Your task to perform on an android device: make emails show in primary in the gmail app Image 0: 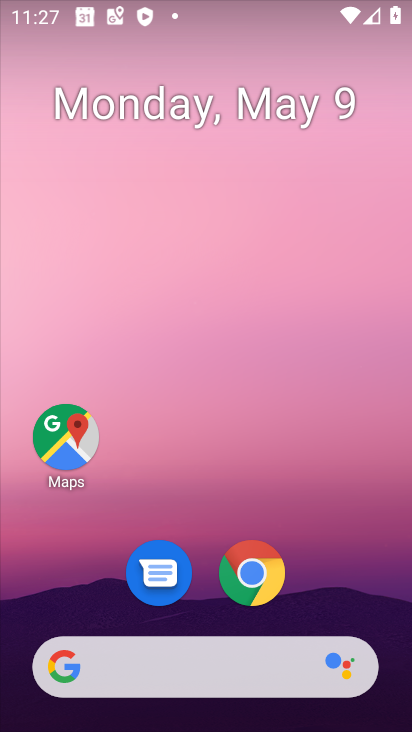
Step 0: click (320, 264)
Your task to perform on an android device: make emails show in primary in the gmail app Image 1: 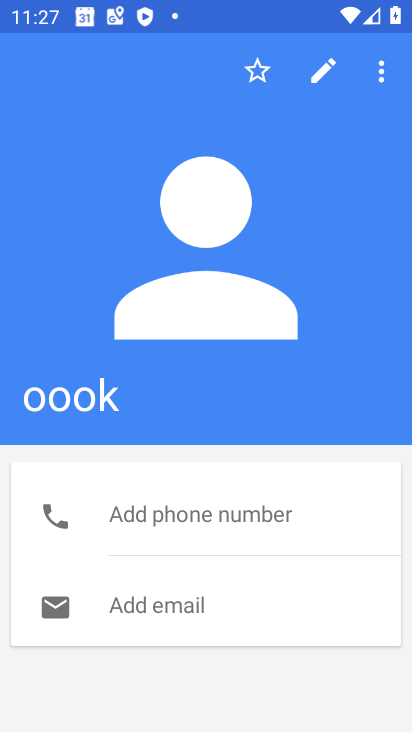
Step 1: drag from (218, 629) to (250, 297)
Your task to perform on an android device: make emails show in primary in the gmail app Image 2: 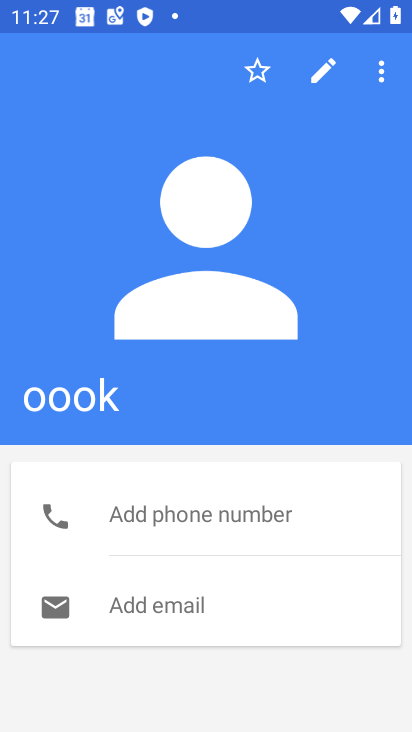
Step 2: drag from (277, 587) to (287, 320)
Your task to perform on an android device: make emails show in primary in the gmail app Image 3: 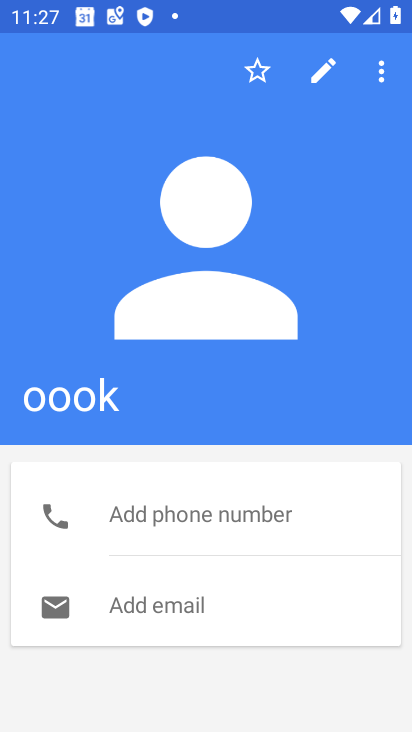
Step 3: drag from (205, 574) to (261, 245)
Your task to perform on an android device: make emails show in primary in the gmail app Image 4: 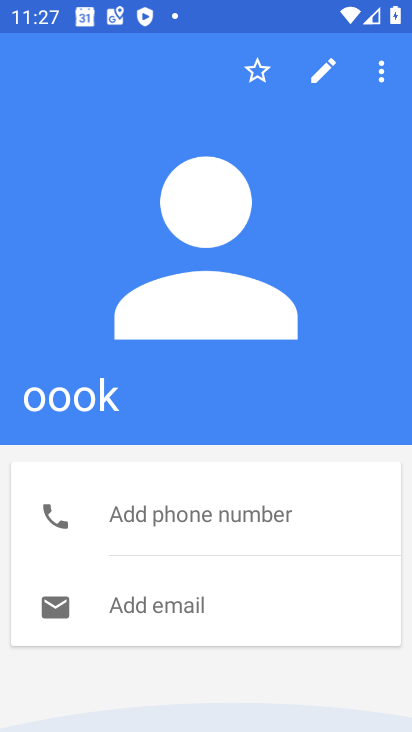
Step 4: drag from (250, 218) to (248, 534)
Your task to perform on an android device: make emails show in primary in the gmail app Image 5: 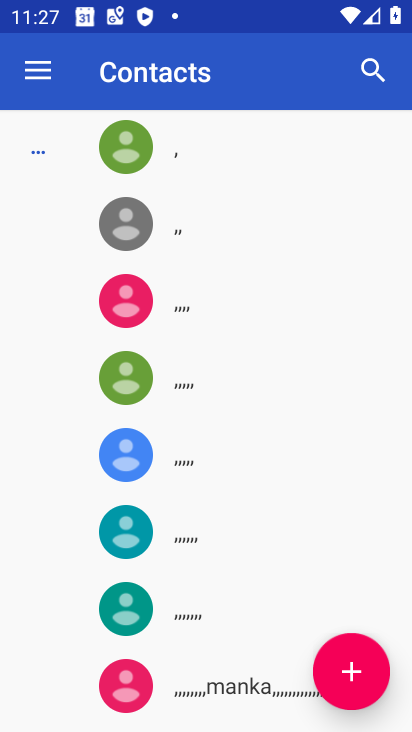
Step 5: drag from (223, 547) to (237, 287)
Your task to perform on an android device: make emails show in primary in the gmail app Image 6: 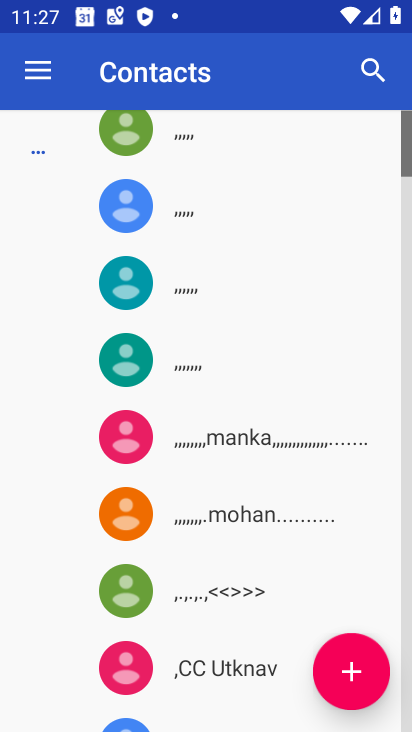
Step 6: drag from (237, 251) to (261, 641)
Your task to perform on an android device: make emails show in primary in the gmail app Image 7: 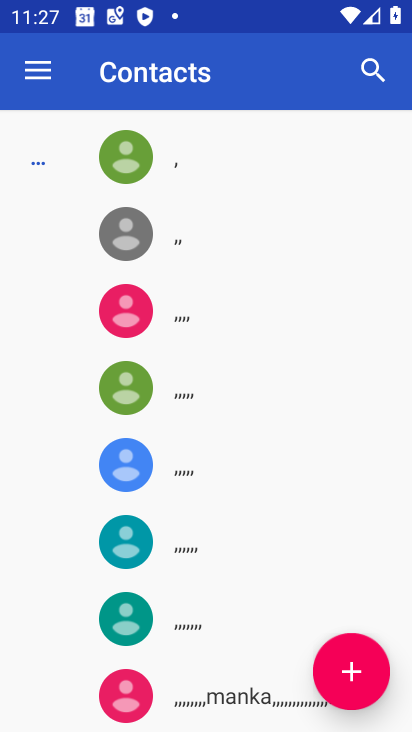
Step 7: press home button
Your task to perform on an android device: make emails show in primary in the gmail app Image 8: 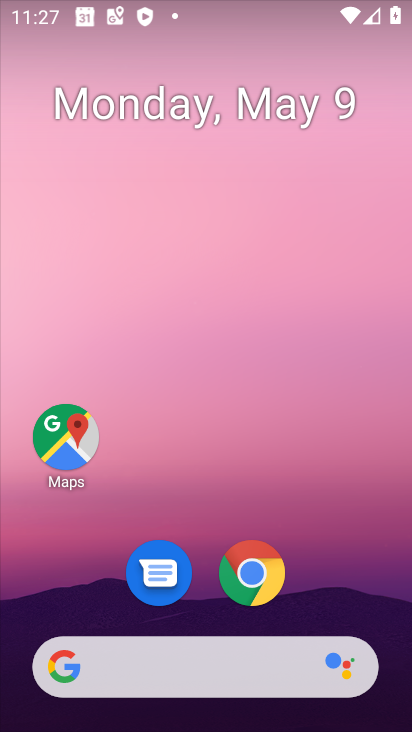
Step 8: drag from (204, 599) to (236, 336)
Your task to perform on an android device: make emails show in primary in the gmail app Image 9: 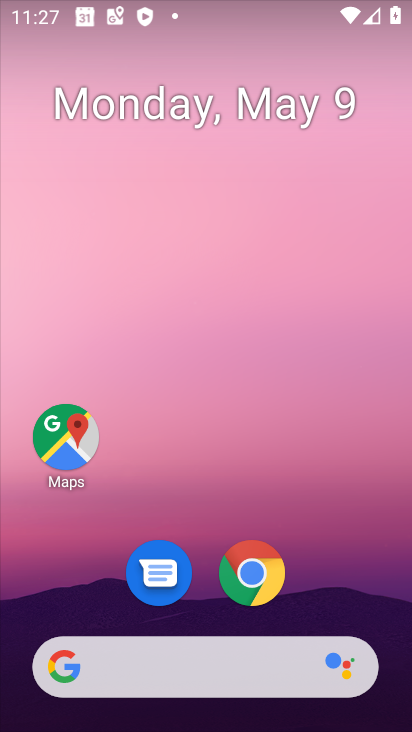
Step 9: drag from (213, 602) to (229, 308)
Your task to perform on an android device: make emails show in primary in the gmail app Image 10: 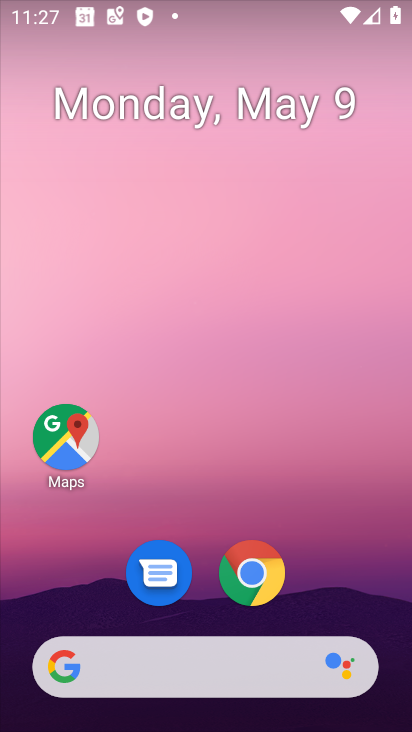
Step 10: drag from (212, 600) to (212, 259)
Your task to perform on an android device: make emails show in primary in the gmail app Image 11: 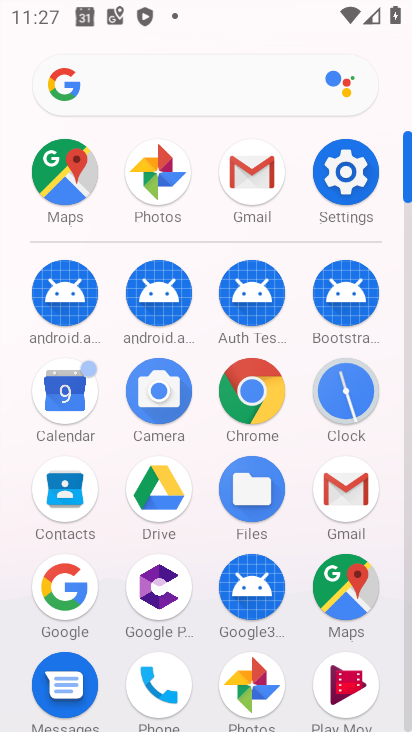
Step 11: click (339, 500)
Your task to perform on an android device: make emails show in primary in the gmail app Image 12: 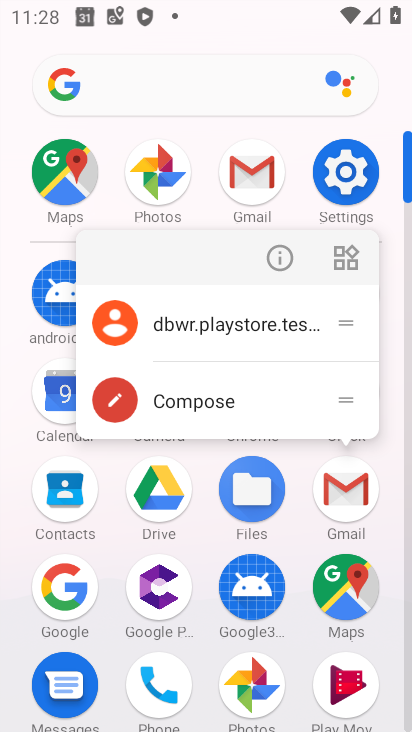
Step 12: click (293, 263)
Your task to perform on an android device: make emails show in primary in the gmail app Image 13: 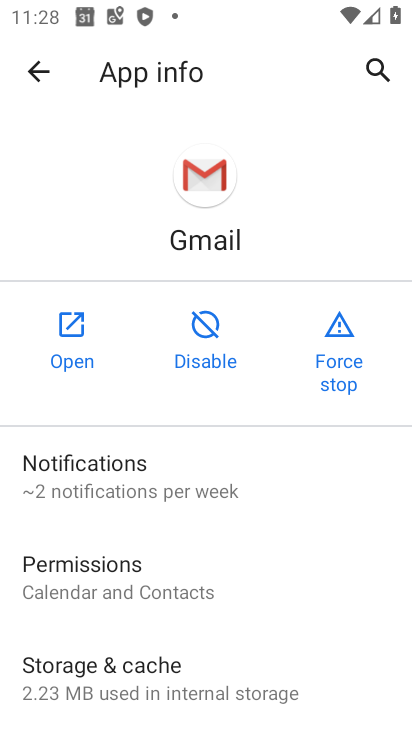
Step 13: click (60, 345)
Your task to perform on an android device: make emails show in primary in the gmail app Image 14: 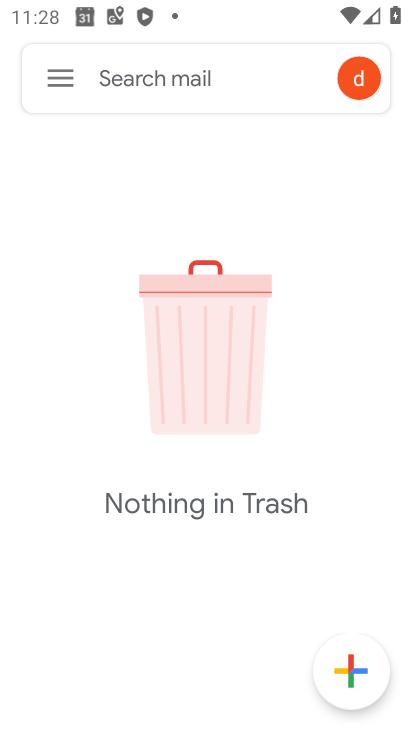
Step 14: drag from (185, 506) to (192, 362)
Your task to perform on an android device: make emails show in primary in the gmail app Image 15: 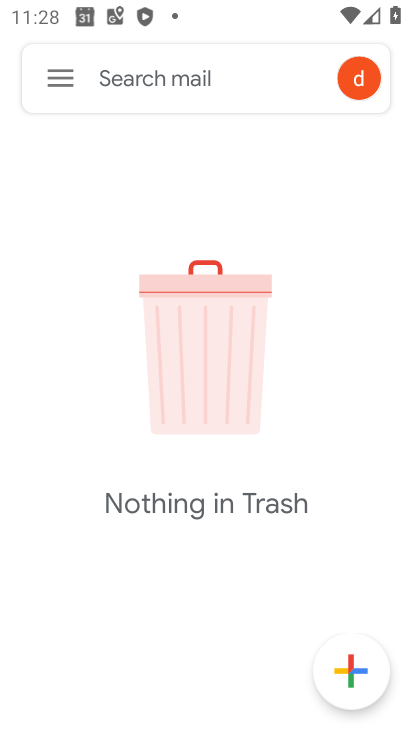
Step 15: click (50, 70)
Your task to perform on an android device: make emails show in primary in the gmail app Image 16: 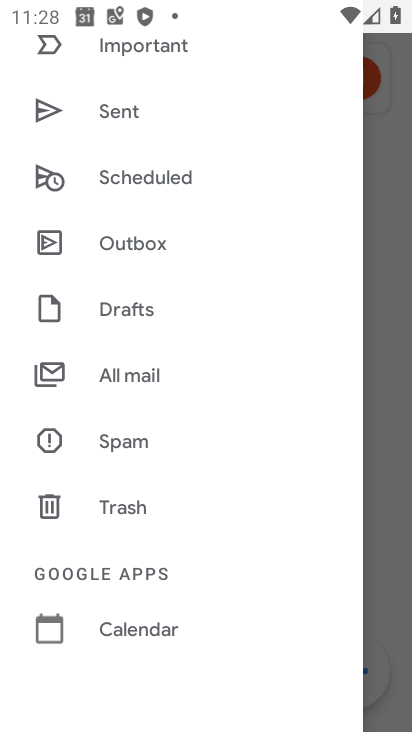
Step 16: drag from (159, 175) to (198, 712)
Your task to perform on an android device: make emails show in primary in the gmail app Image 17: 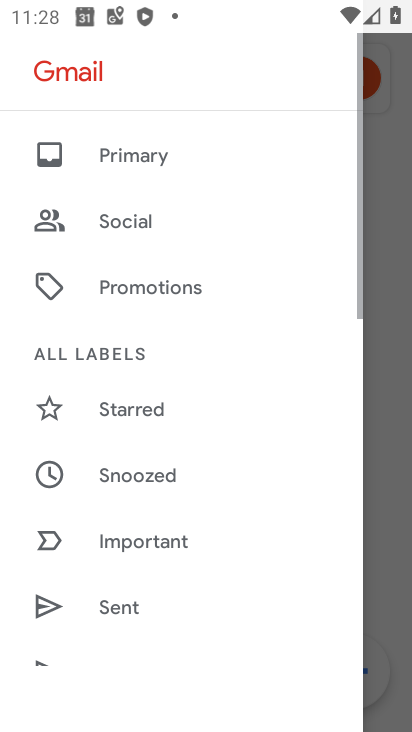
Step 17: click (157, 167)
Your task to perform on an android device: make emails show in primary in the gmail app Image 18: 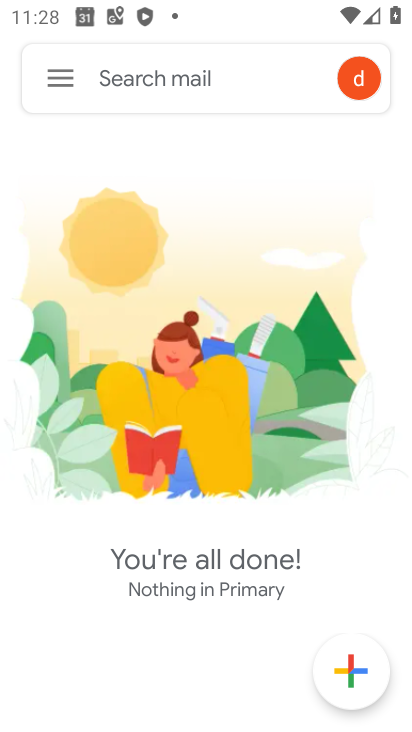
Step 18: task complete